Your task to perform on an android device: change your default location settings in chrome Image 0: 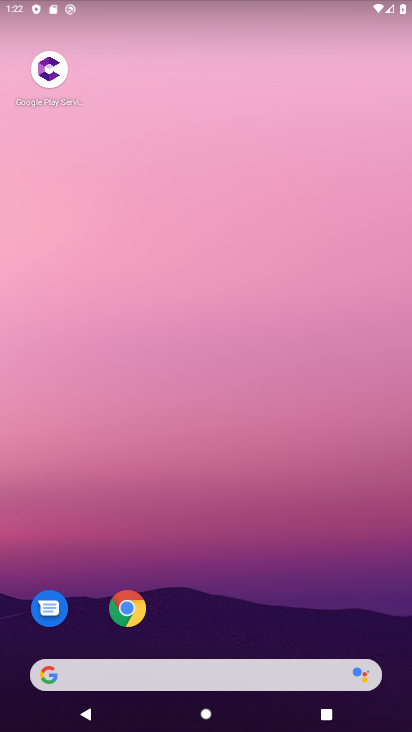
Step 0: click (133, 617)
Your task to perform on an android device: change your default location settings in chrome Image 1: 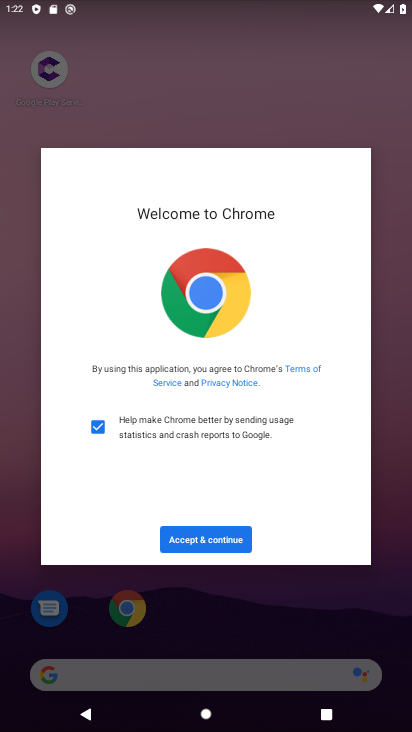
Step 1: click (185, 547)
Your task to perform on an android device: change your default location settings in chrome Image 2: 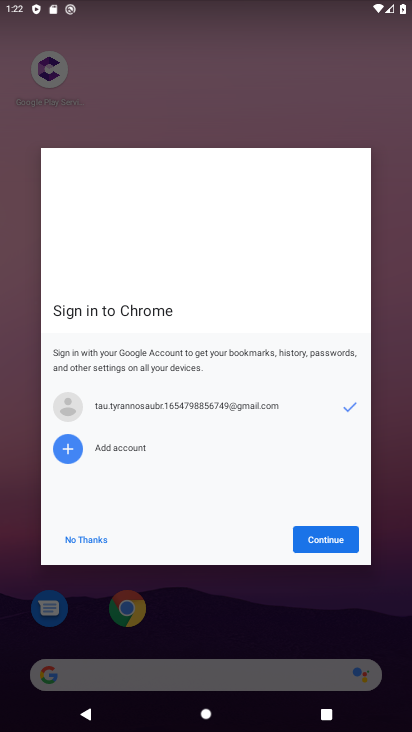
Step 2: click (331, 544)
Your task to perform on an android device: change your default location settings in chrome Image 3: 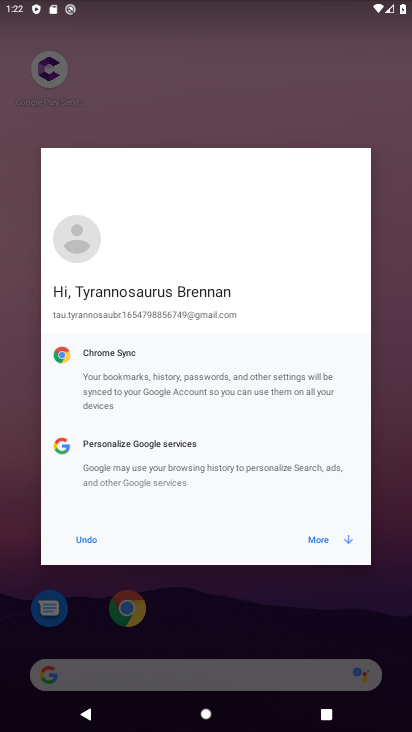
Step 3: click (320, 537)
Your task to perform on an android device: change your default location settings in chrome Image 4: 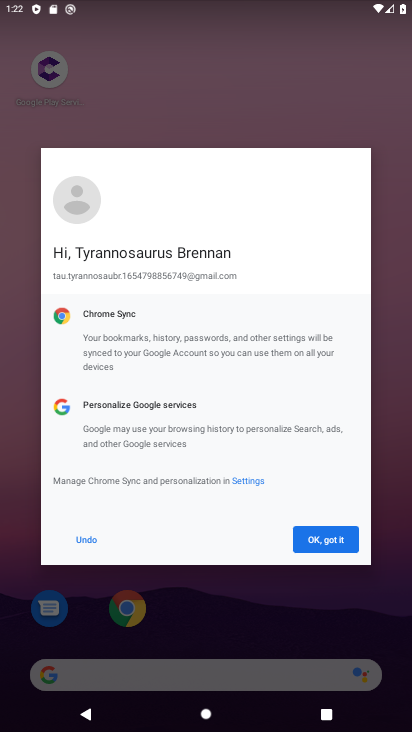
Step 4: click (320, 537)
Your task to perform on an android device: change your default location settings in chrome Image 5: 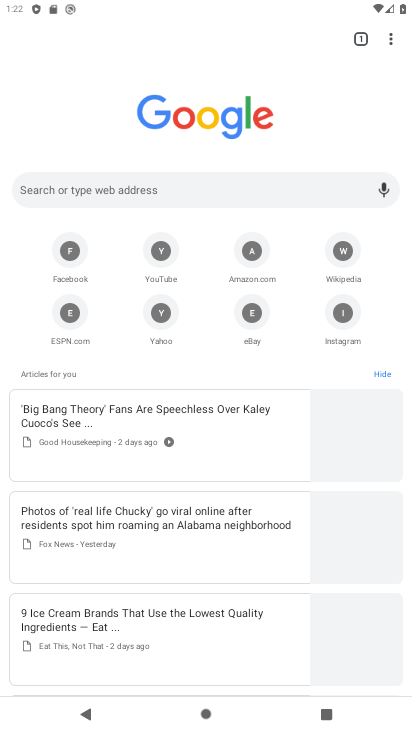
Step 5: click (390, 36)
Your task to perform on an android device: change your default location settings in chrome Image 6: 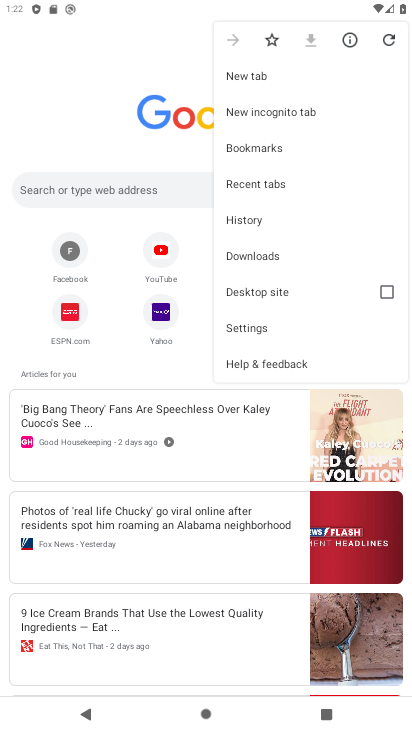
Step 6: click (263, 334)
Your task to perform on an android device: change your default location settings in chrome Image 7: 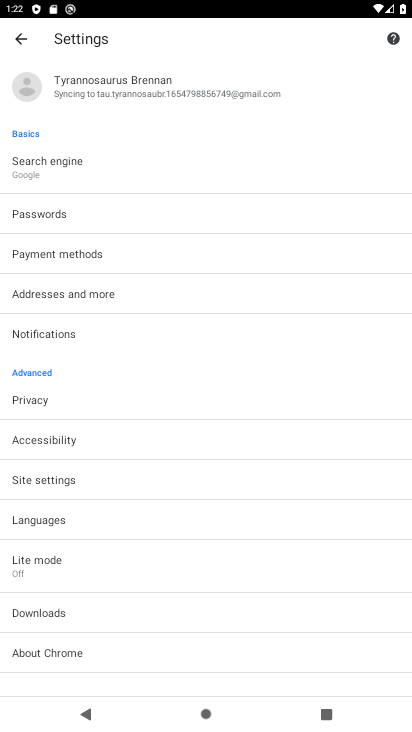
Step 7: click (41, 473)
Your task to perform on an android device: change your default location settings in chrome Image 8: 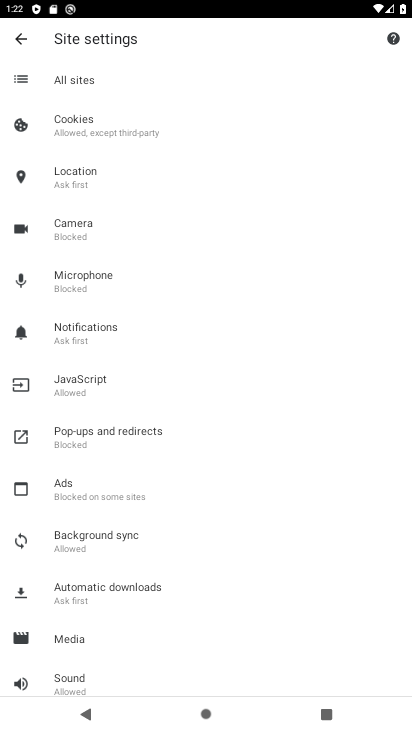
Step 8: click (93, 180)
Your task to perform on an android device: change your default location settings in chrome Image 9: 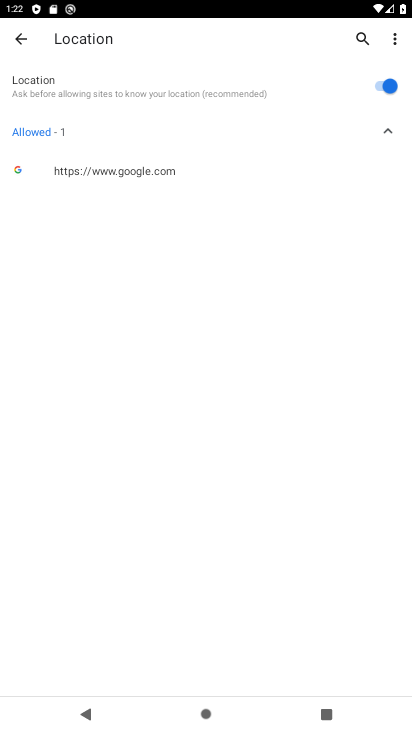
Step 9: click (371, 83)
Your task to perform on an android device: change your default location settings in chrome Image 10: 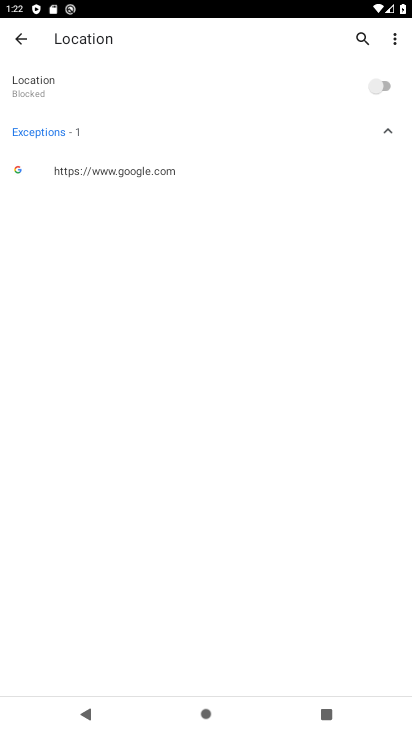
Step 10: task complete